Your task to perform on an android device: Is it going to rain this weekend? Image 0: 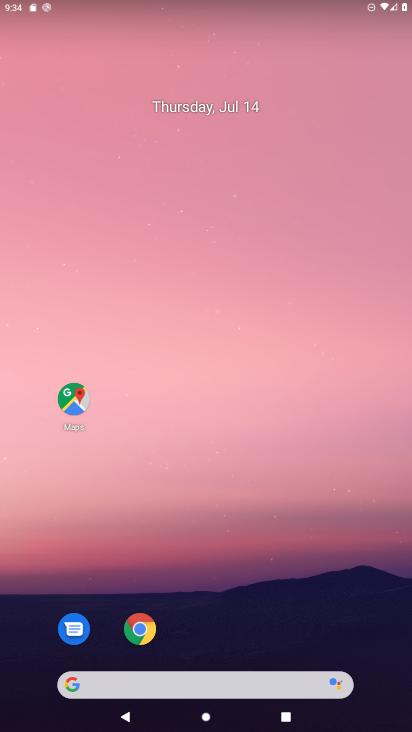
Step 0: drag from (249, 619) to (283, 71)
Your task to perform on an android device: Is it going to rain this weekend? Image 1: 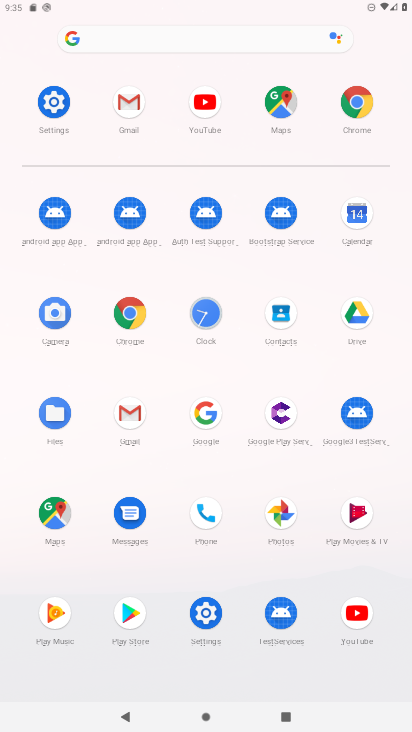
Step 1: click (138, 318)
Your task to perform on an android device: Is it going to rain this weekend? Image 2: 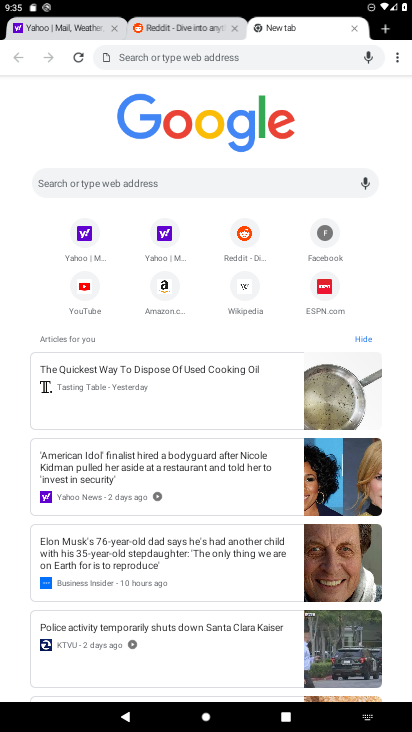
Step 2: click (219, 60)
Your task to perform on an android device: Is it going to rain this weekend? Image 3: 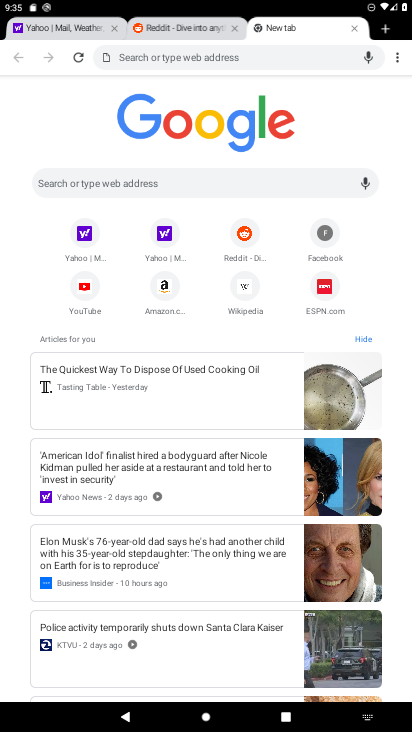
Step 3: press home button
Your task to perform on an android device: Is it going to rain this weekend? Image 4: 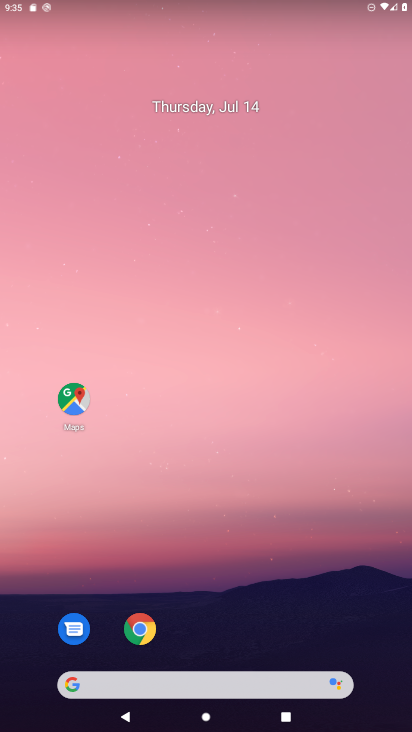
Step 4: click (134, 614)
Your task to perform on an android device: Is it going to rain this weekend? Image 5: 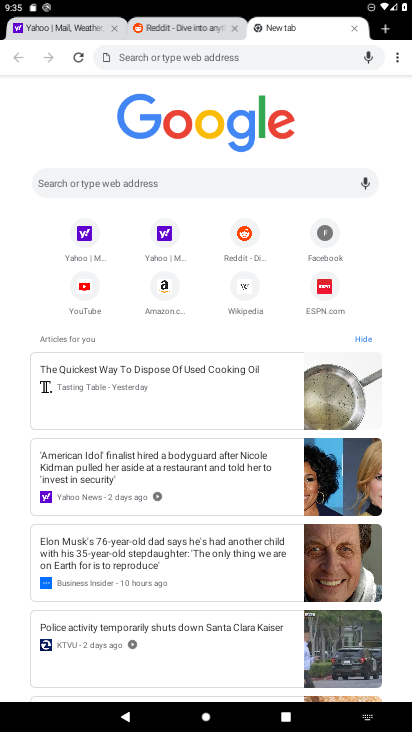
Step 5: click (166, 60)
Your task to perform on an android device: Is it going to rain this weekend? Image 6: 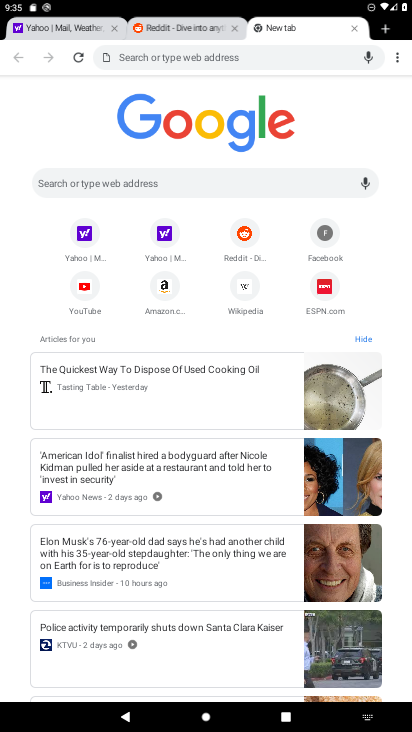
Step 6: type "Is it going to rain this weekend?"
Your task to perform on an android device: Is it going to rain this weekend? Image 7: 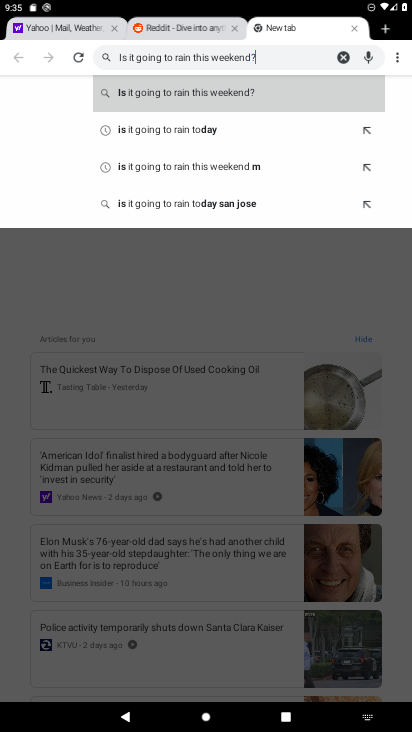
Step 7: type ""
Your task to perform on an android device: Is it going to rain this weekend? Image 8: 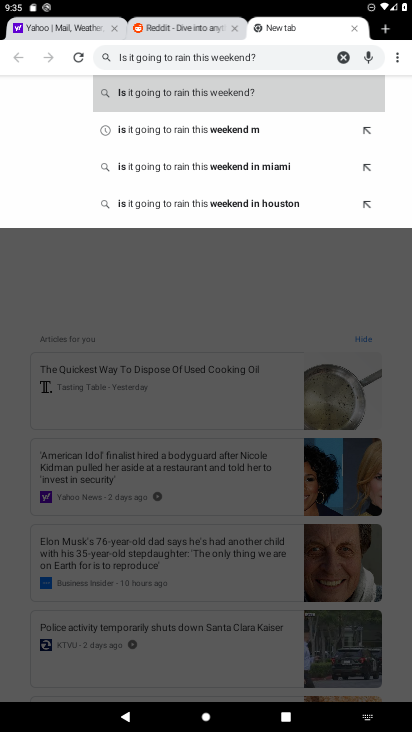
Step 8: click (176, 93)
Your task to perform on an android device: Is it going to rain this weekend? Image 9: 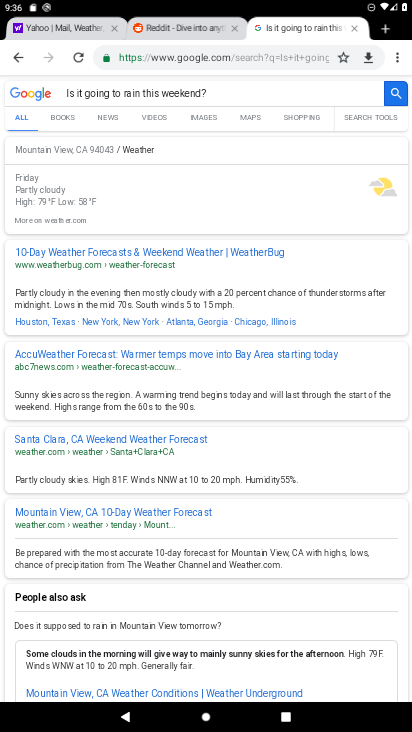
Step 9: task complete